Your task to perform on an android device: Open calendar and show me the third week of next month Image 0: 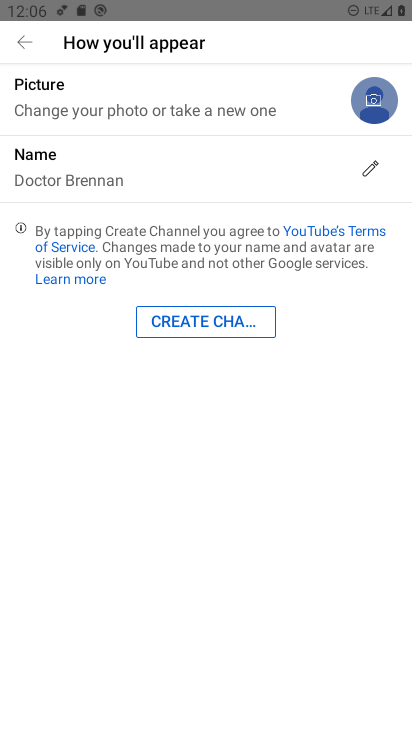
Step 0: press home button
Your task to perform on an android device: Open calendar and show me the third week of next month Image 1: 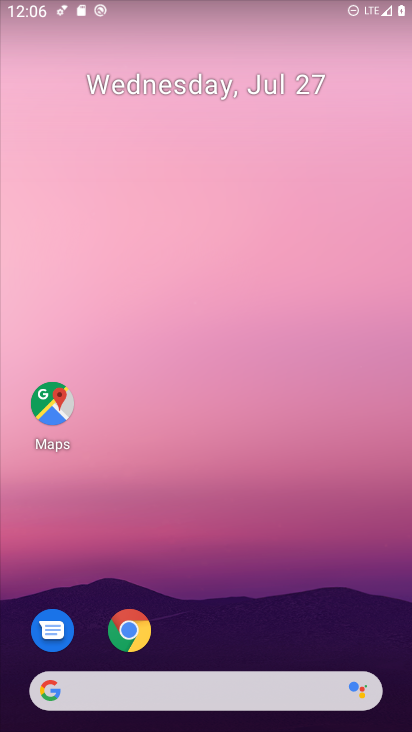
Step 1: drag from (382, 636) to (325, 158)
Your task to perform on an android device: Open calendar and show me the third week of next month Image 2: 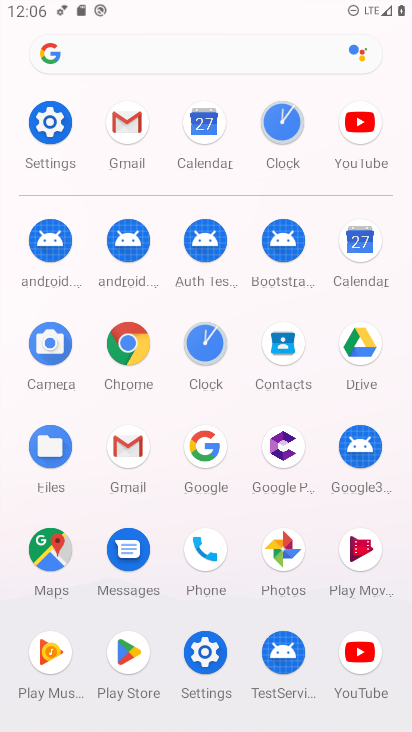
Step 2: click (361, 241)
Your task to perform on an android device: Open calendar and show me the third week of next month Image 3: 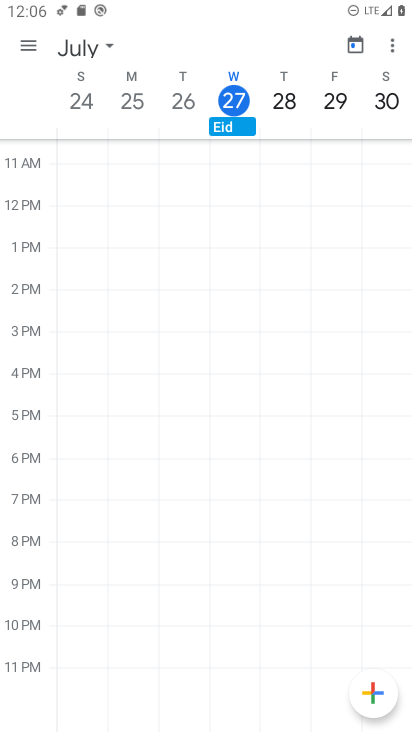
Step 3: click (111, 44)
Your task to perform on an android device: Open calendar and show me the third week of next month Image 4: 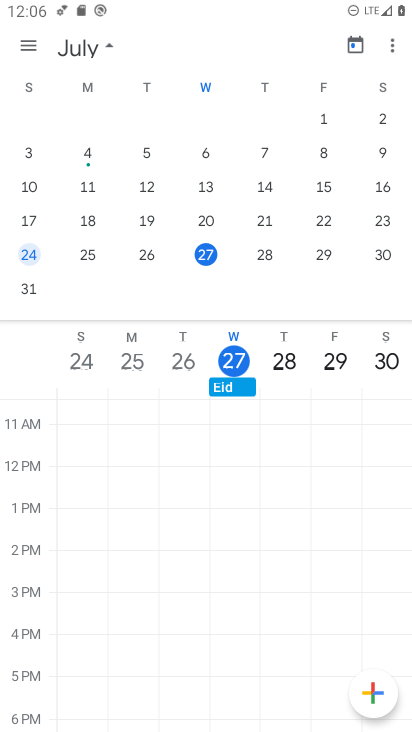
Step 4: drag from (386, 213) to (23, 164)
Your task to perform on an android device: Open calendar and show me the third week of next month Image 5: 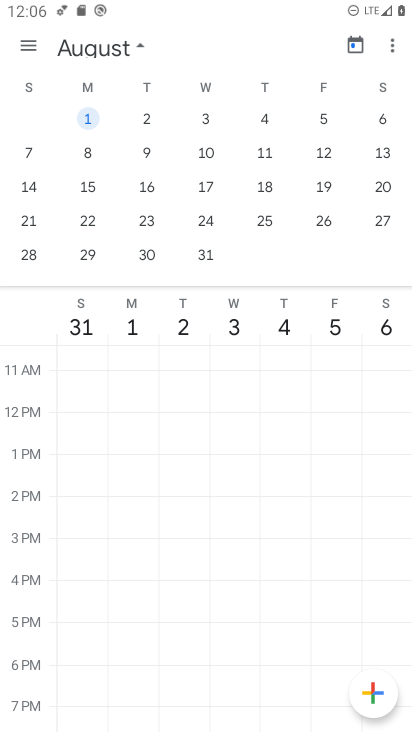
Step 5: click (24, 217)
Your task to perform on an android device: Open calendar and show me the third week of next month Image 6: 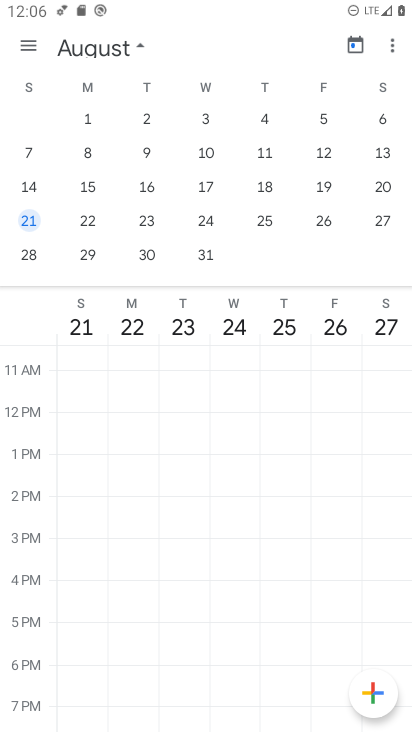
Step 6: task complete